Your task to perform on an android device: Set the phone to "Do not disturb". Image 0: 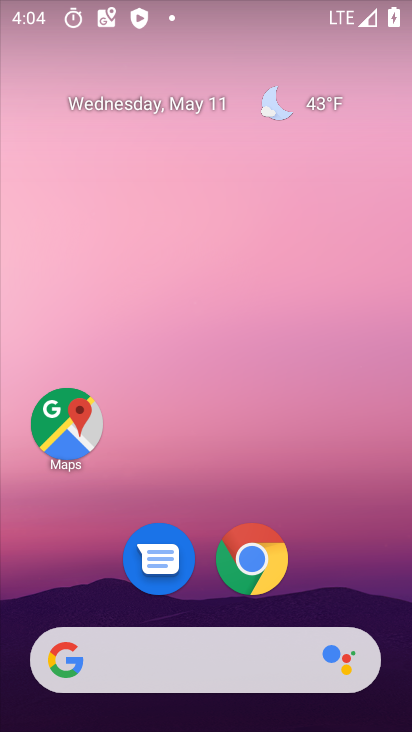
Step 0: press home button
Your task to perform on an android device: Set the phone to "Do not disturb". Image 1: 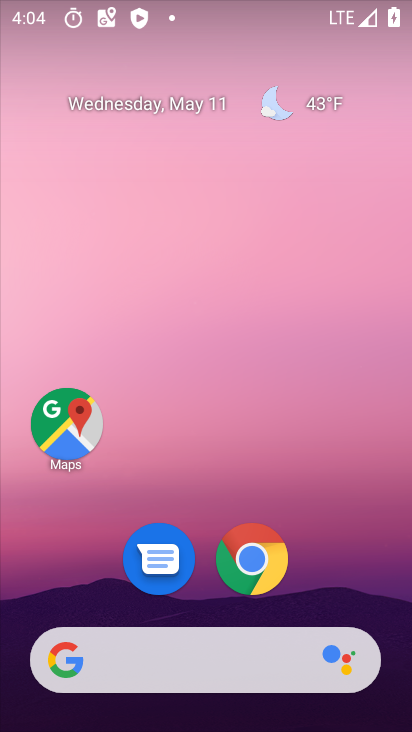
Step 1: drag from (325, 434) to (266, 24)
Your task to perform on an android device: Set the phone to "Do not disturb". Image 2: 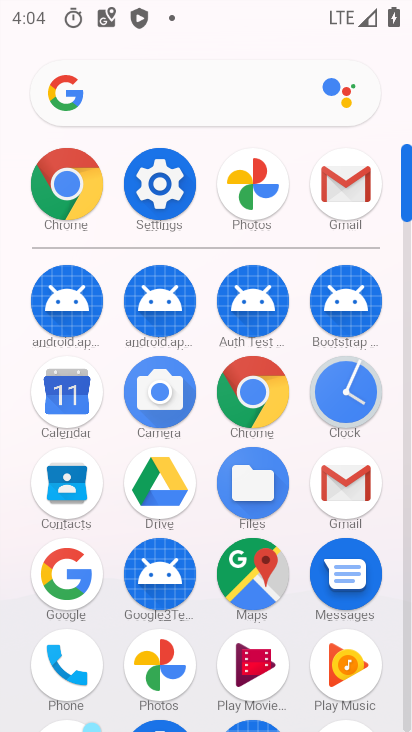
Step 2: click (167, 191)
Your task to perform on an android device: Set the phone to "Do not disturb". Image 3: 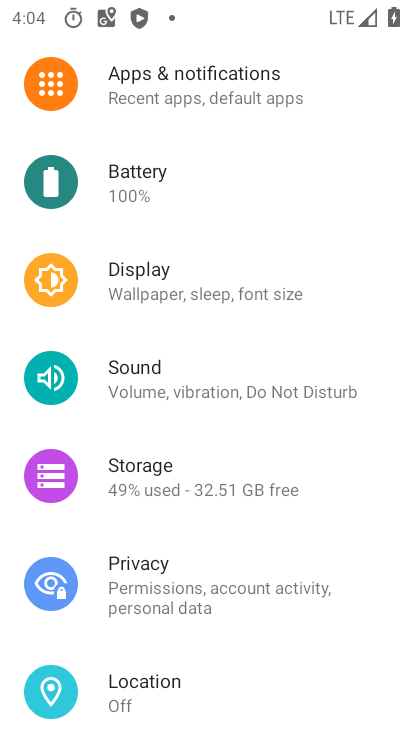
Step 3: click (205, 388)
Your task to perform on an android device: Set the phone to "Do not disturb". Image 4: 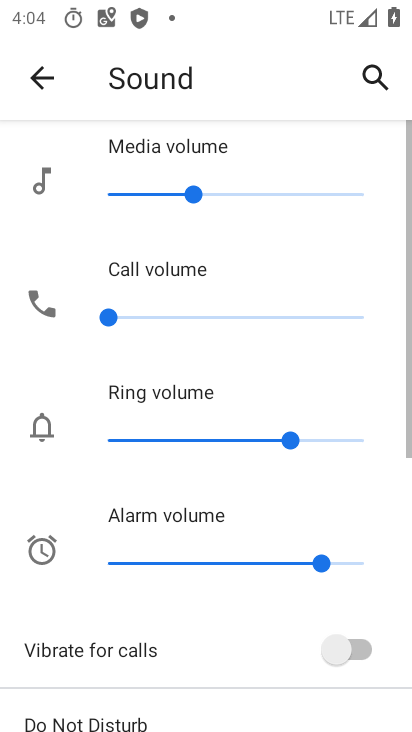
Step 4: click (206, 708)
Your task to perform on an android device: Set the phone to "Do not disturb". Image 5: 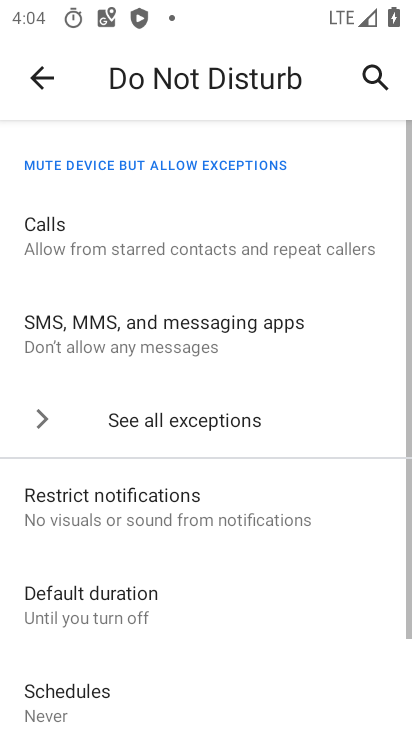
Step 5: drag from (241, 607) to (245, 87)
Your task to perform on an android device: Set the phone to "Do not disturb". Image 6: 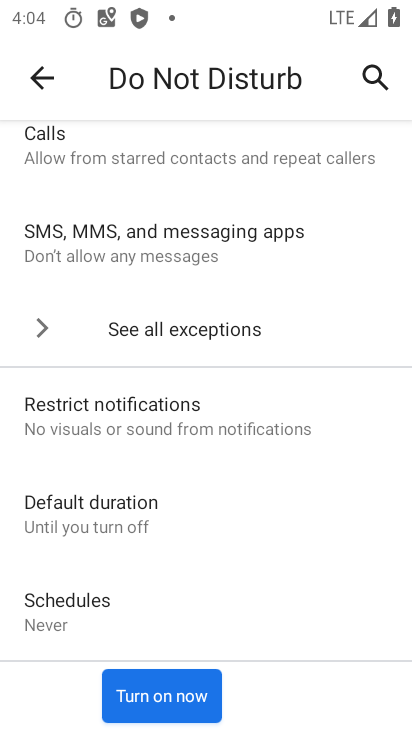
Step 6: click (155, 691)
Your task to perform on an android device: Set the phone to "Do not disturb". Image 7: 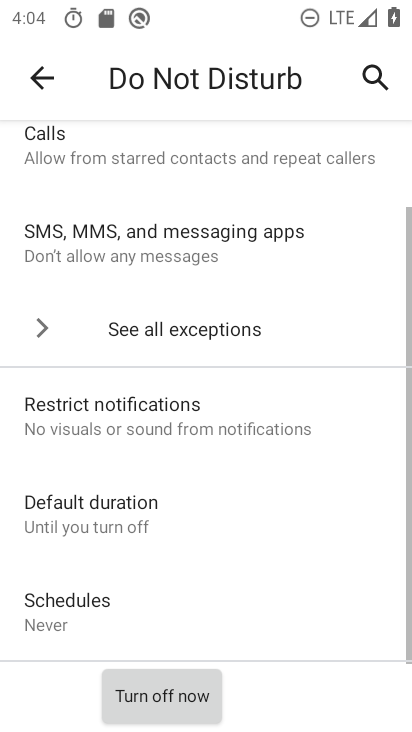
Step 7: task complete